Your task to perform on an android device: allow cookies in the chrome app Image 0: 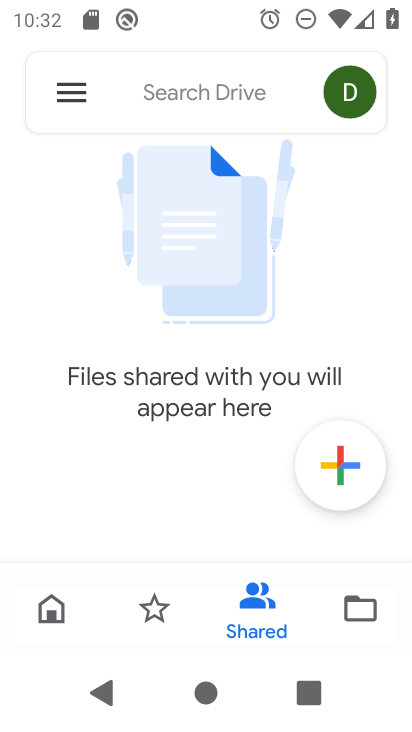
Step 0: press home button
Your task to perform on an android device: allow cookies in the chrome app Image 1: 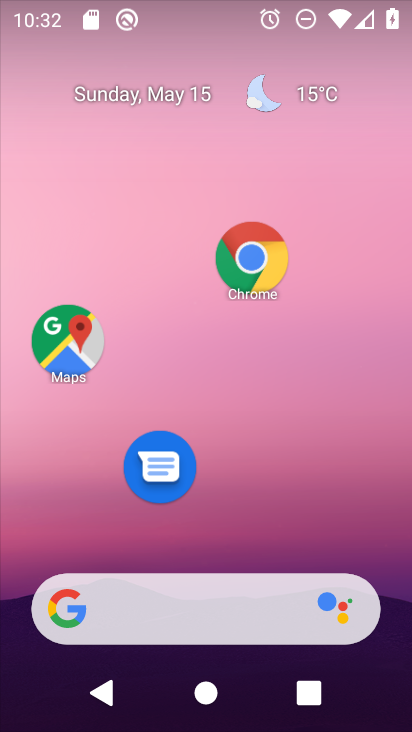
Step 1: click (253, 242)
Your task to perform on an android device: allow cookies in the chrome app Image 2: 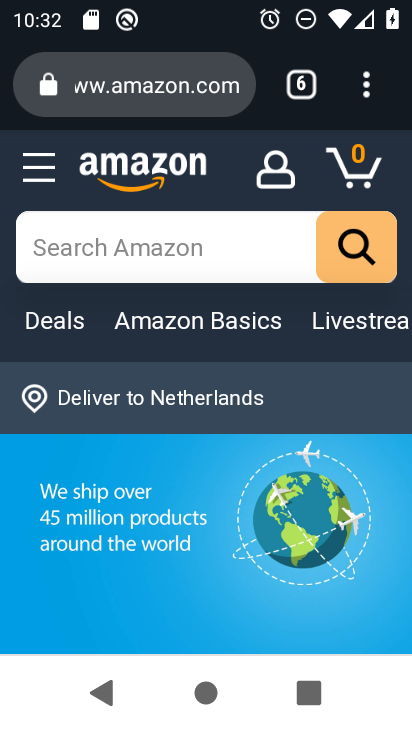
Step 2: click (363, 74)
Your task to perform on an android device: allow cookies in the chrome app Image 3: 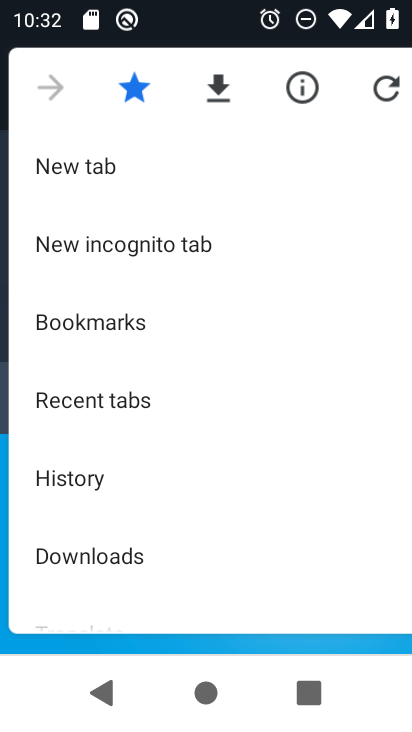
Step 3: drag from (214, 484) to (208, 1)
Your task to perform on an android device: allow cookies in the chrome app Image 4: 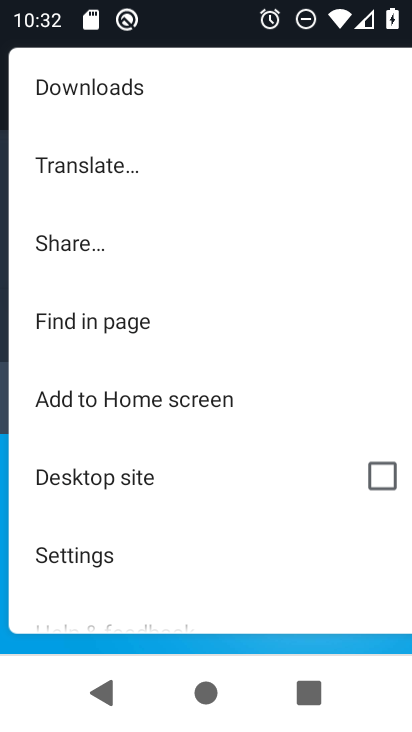
Step 4: click (85, 571)
Your task to perform on an android device: allow cookies in the chrome app Image 5: 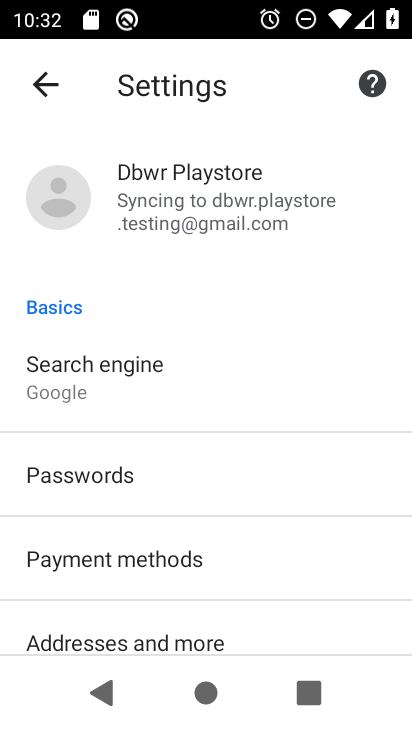
Step 5: drag from (85, 571) to (108, 210)
Your task to perform on an android device: allow cookies in the chrome app Image 6: 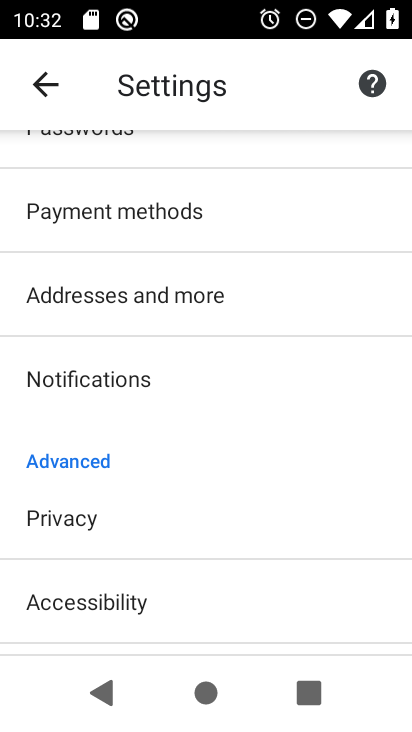
Step 6: drag from (189, 575) to (182, 239)
Your task to perform on an android device: allow cookies in the chrome app Image 7: 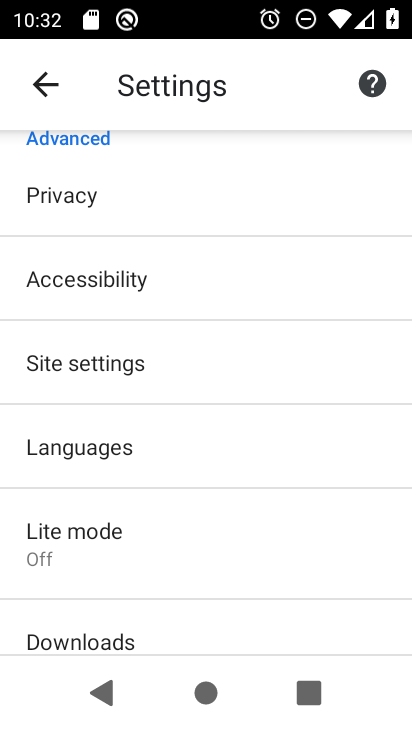
Step 7: click (167, 366)
Your task to perform on an android device: allow cookies in the chrome app Image 8: 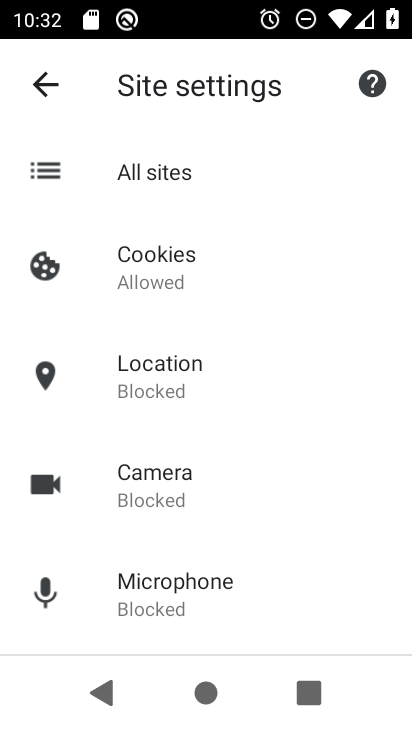
Step 8: click (167, 291)
Your task to perform on an android device: allow cookies in the chrome app Image 9: 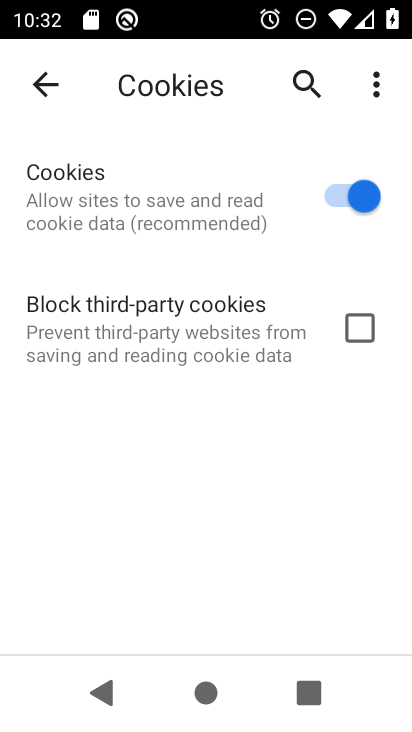
Step 9: task complete